Your task to perform on an android device: turn vacation reply on in the gmail app Image 0: 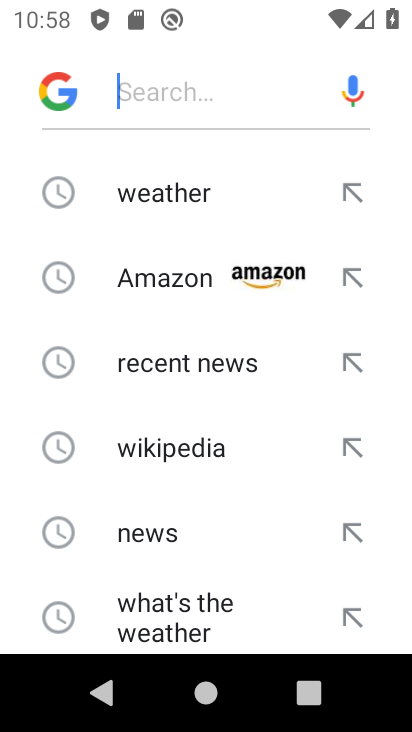
Step 0: press home button
Your task to perform on an android device: turn vacation reply on in the gmail app Image 1: 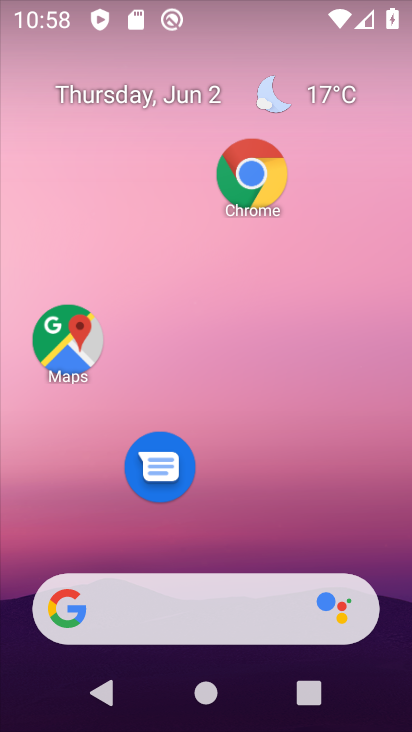
Step 1: drag from (234, 509) to (84, 15)
Your task to perform on an android device: turn vacation reply on in the gmail app Image 2: 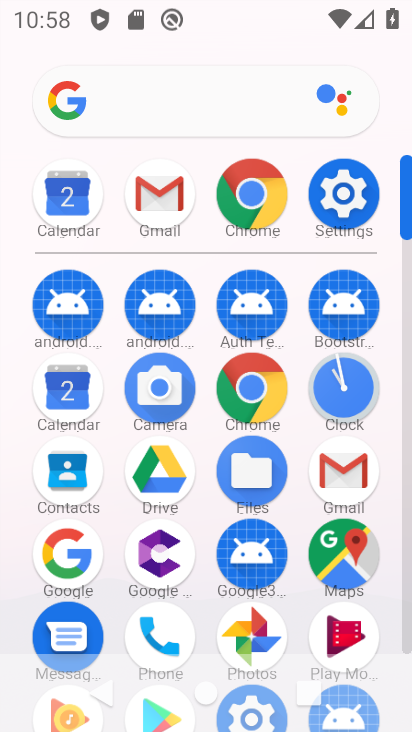
Step 2: click (153, 208)
Your task to perform on an android device: turn vacation reply on in the gmail app Image 3: 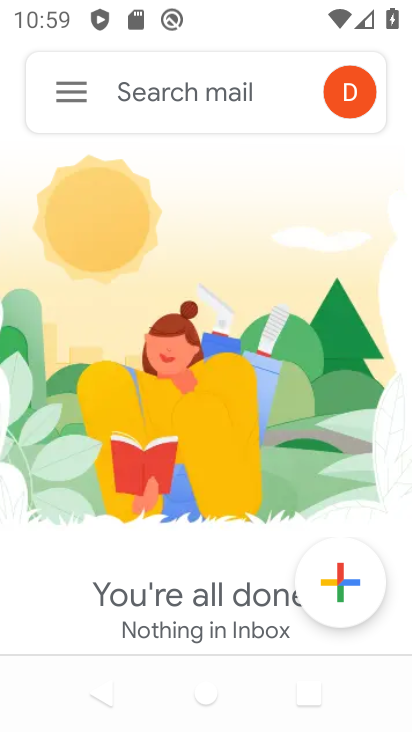
Step 3: click (64, 80)
Your task to perform on an android device: turn vacation reply on in the gmail app Image 4: 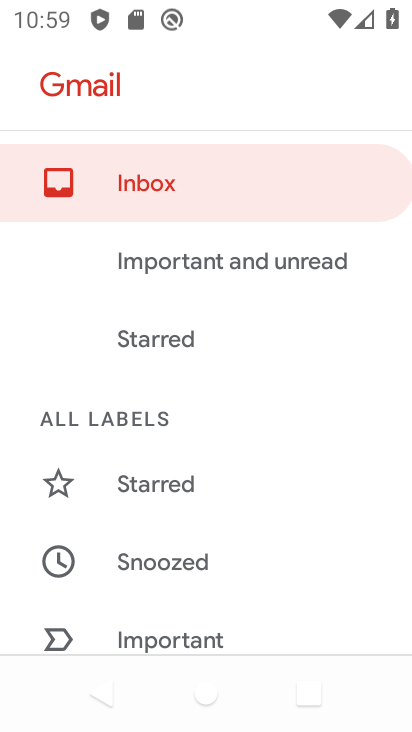
Step 4: drag from (259, 608) to (217, 6)
Your task to perform on an android device: turn vacation reply on in the gmail app Image 5: 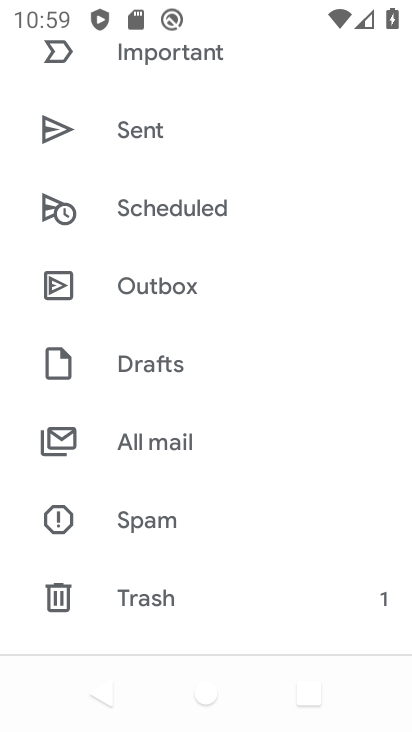
Step 5: drag from (313, 544) to (238, 86)
Your task to perform on an android device: turn vacation reply on in the gmail app Image 6: 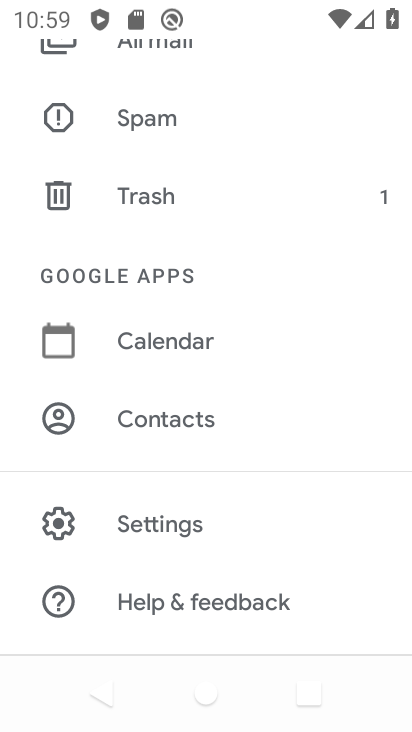
Step 6: click (156, 519)
Your task to perform on an android device: turn vacation reply on in the gmail app Image 7: 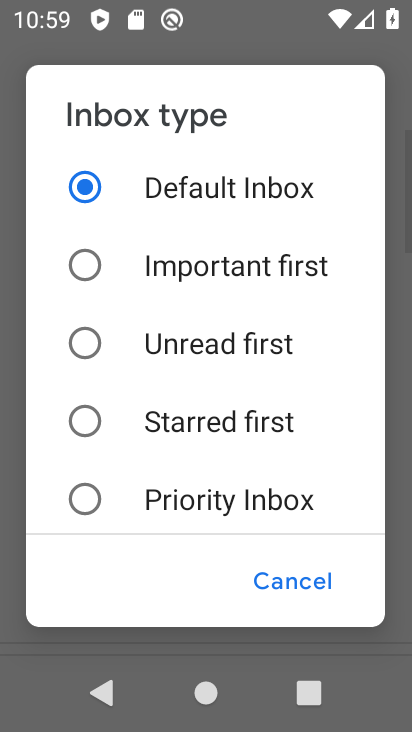
Step 7: click (283, 584)
Your task to perform on an android device: turn vacation reply on in the gmail app Image 8: 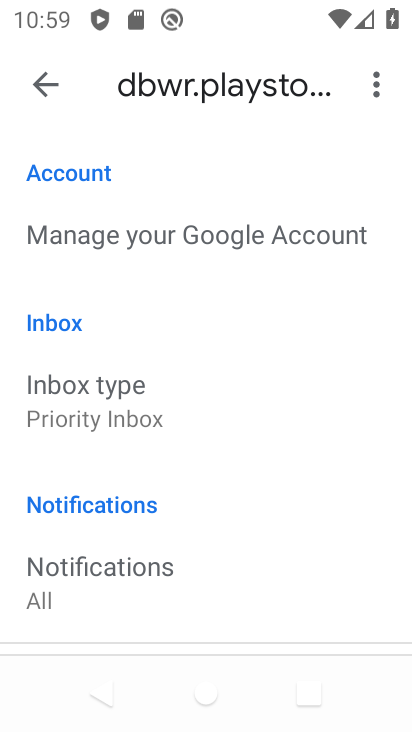
Step 8: drag from (229, 543) to (116, 0)
Your task to perform on an android device: turn vacation reply on in the gmail app Image 9: 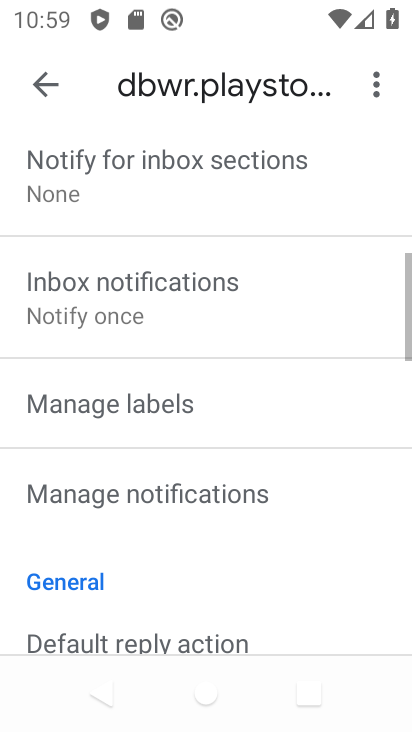
Step 9: drag from (311, 538) to (146, 5)
Your task to perform on an android device: turn vacation reply on in the gmail app Image 10: 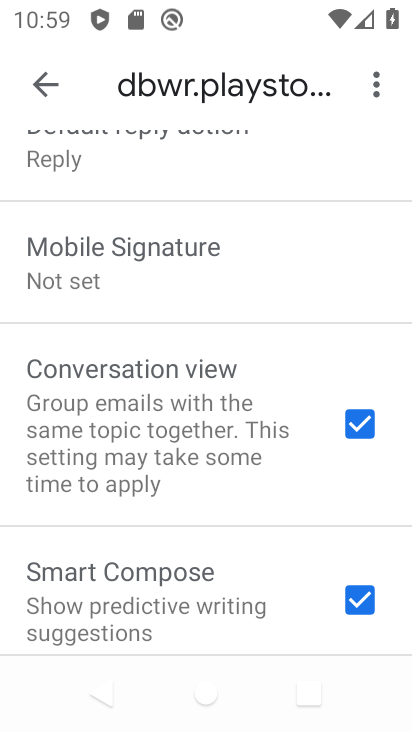
Step 10: drag from (273, 583) to (85, 2)
Your task to perform on an android device: turn vacation reply on in the gmail app Image 11: 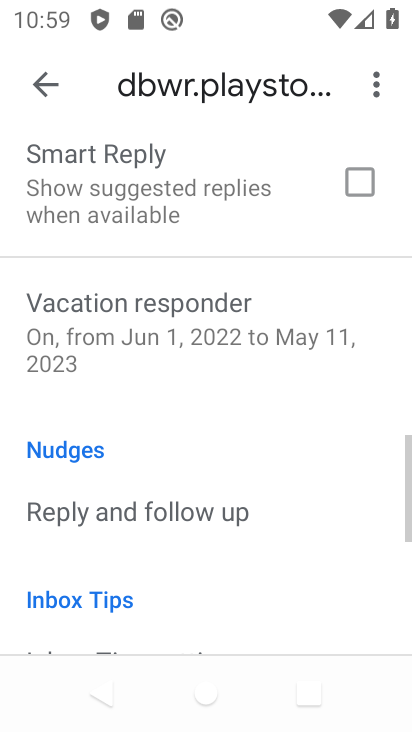
Step 11: click (142, 315)
Your task to perform on an android device: turn vacation reply on in the gmail app Image 12: 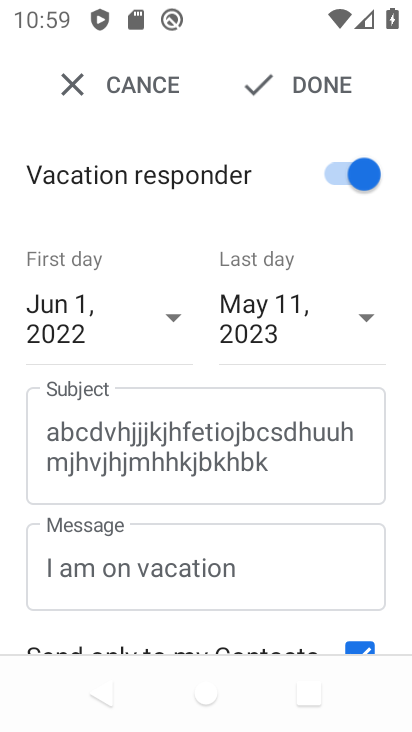
Step 12: task complete